Your task to perform on an android device: Show me recent news Image 0: 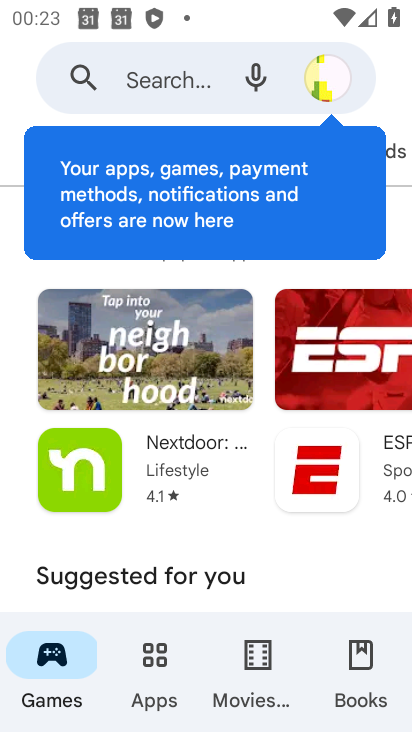
Step 0: press home button
Your task to perform on an android device: Show me recent news Image 1: 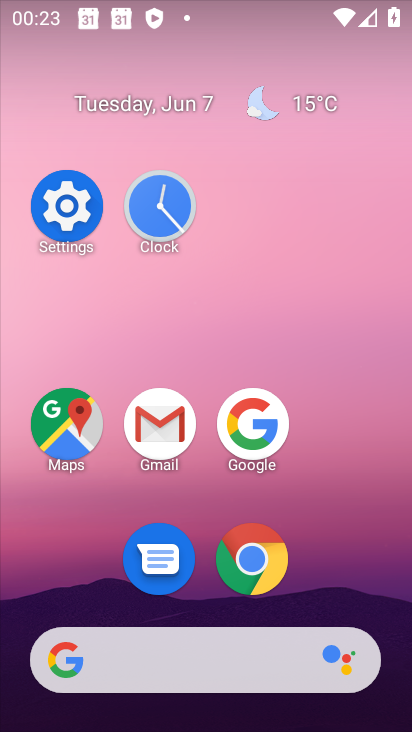
Step 1: click (250, 422)
Your task to perform on an android device: Show me recent news Image 2: 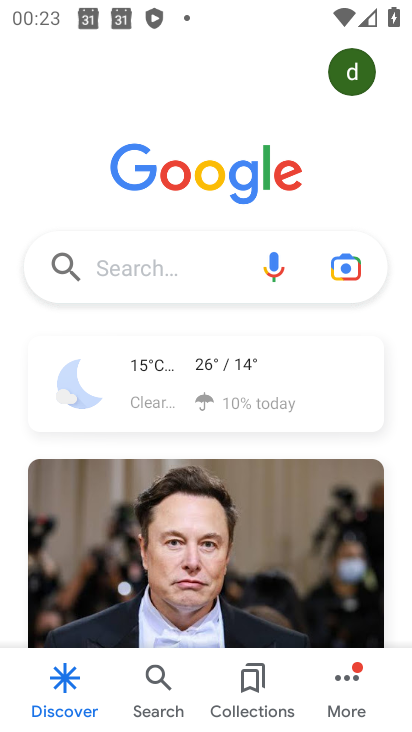
Step 2: click (132, 260)
Your task to perform on an android device: Show me recent news Image 3: 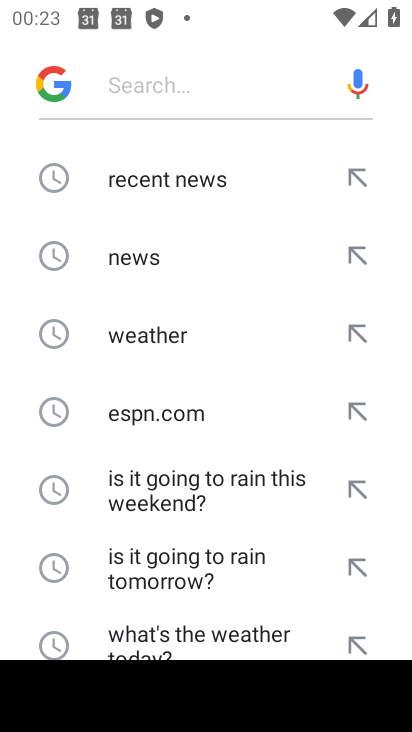
Step 3: click (176, 191)
Your task to perform on an android device: Show me recent news Image 4: 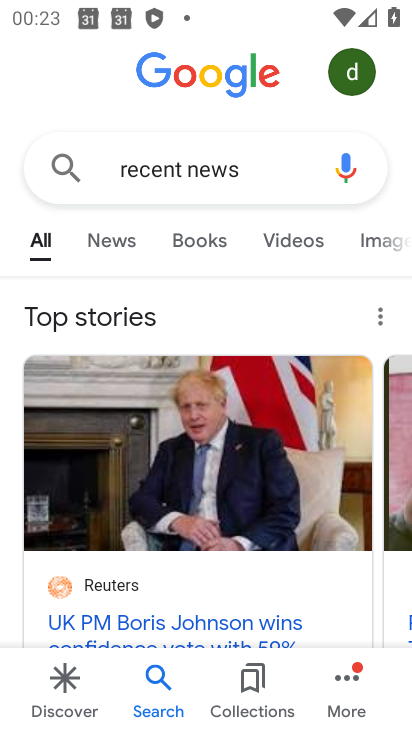
Step 4: task complete